Your task to perform on an android device: turn notification dots on Image 0: 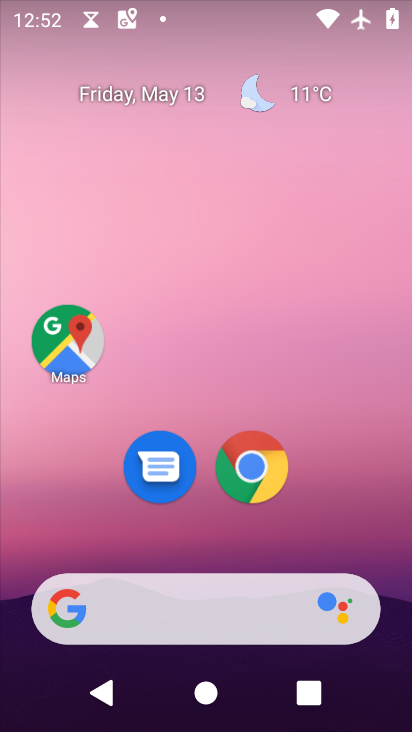
Step 0: drag from (352, 510) to (196, 92)
Your task to perform on an android device: turn notification dots on Image 1: 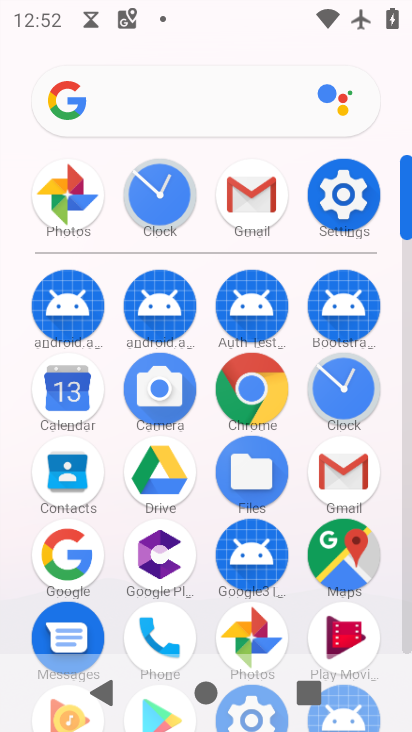
Step 1: click (349, 198)
Your task to perform on an android device: turn notification dots on Image 2: 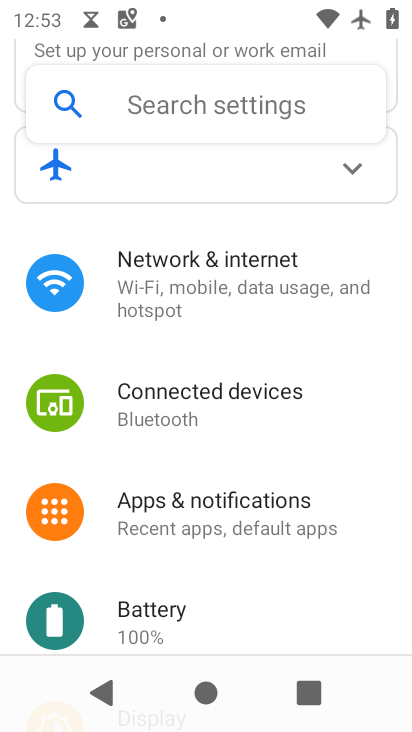
Step 2: click (246, 523)
Your task to perform on an android device: turn notification dots on Image 3: 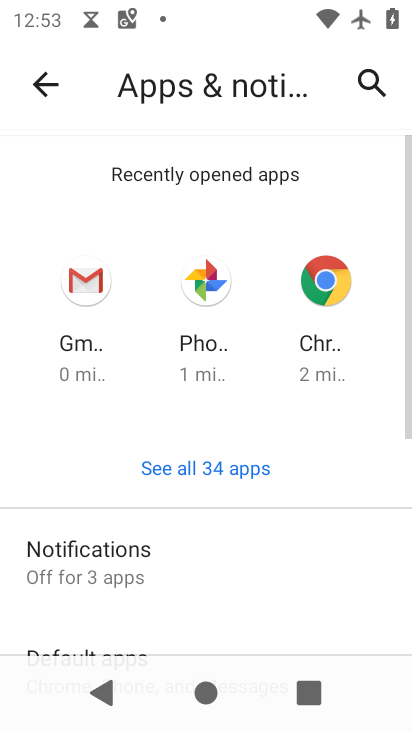
Step 3: drag from (222, 617) to (220, 299)
Your task to perform on an android device: turn notification dots on Image 4: 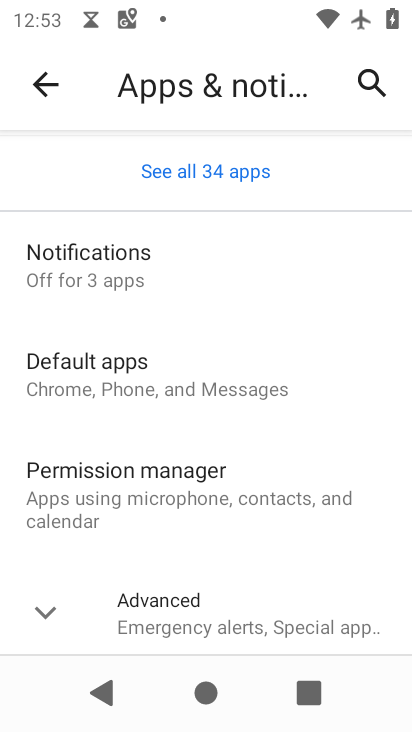
Step 4: click (166, 273)
Your task to perform on an android device: turn notification dots on Image 5: 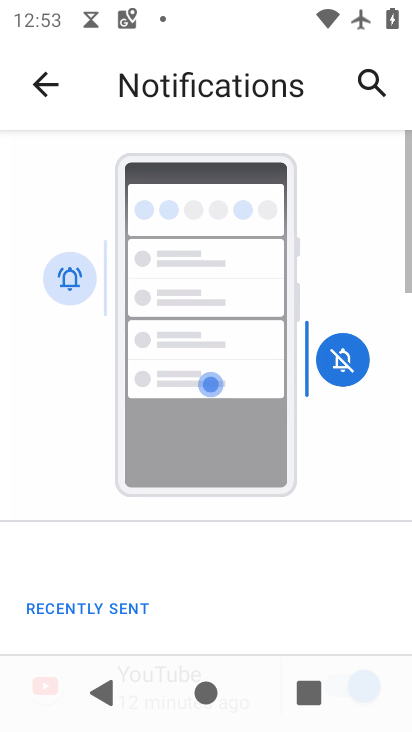
Step 5: drag from (249, 600) to (180, 169)
Your task to perform on an android device: turn notification dots on Image 6: 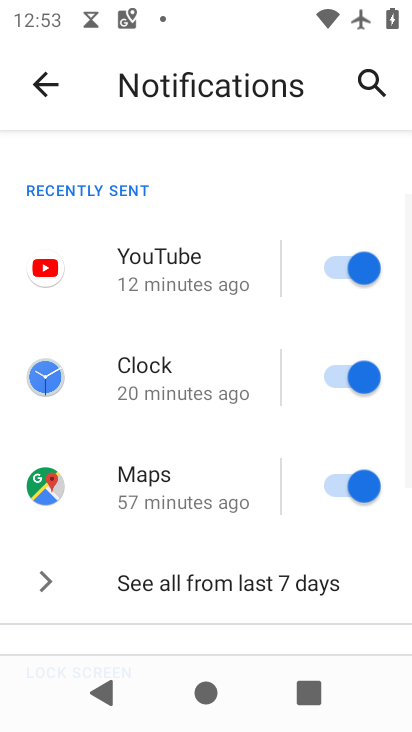
Step 6: drag from (228, 539) to (207, 195)
Your task to perform on an android device: turn notification dots on Image 7: 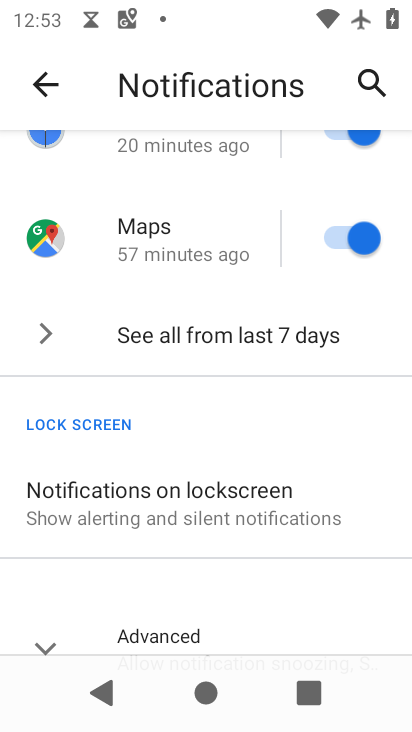
Step 7: drag from (192, 581) to (172, 356)
Your task to perform on an android device: turn notification dots on Image 8: 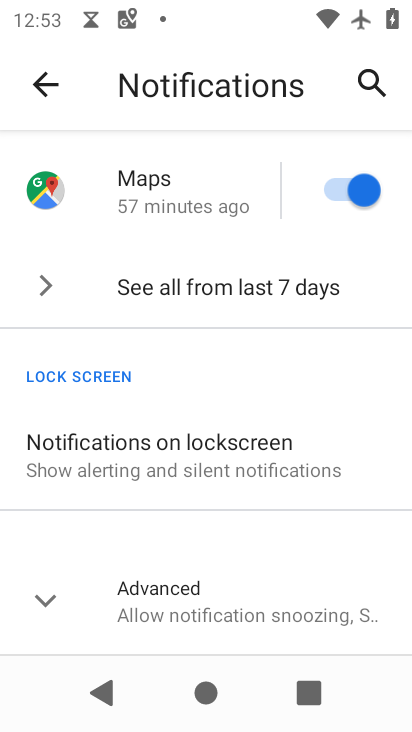
Step 8: click (209, 593)
Your task to perform on an android device: turn notification dots on Image 9: 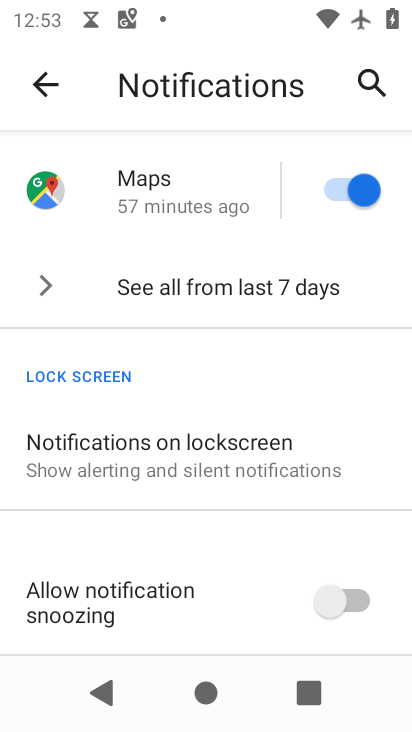
Step 9: drag from (242, 561) to (204, 118)
Your task to perform on an android device: turn notification dots on Image 10: 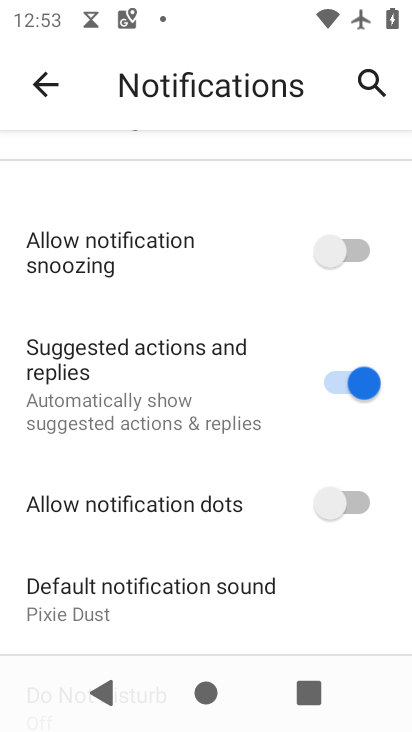
Step 10: click (338, 501)
Your task to perform on an android device: turn notification dots on Image 11: 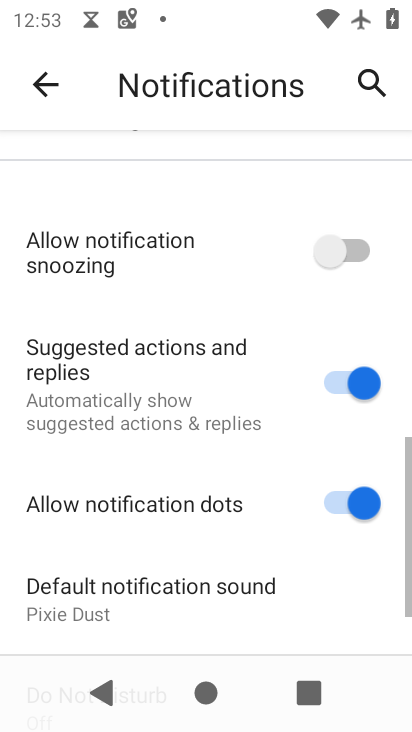
Step 11: task complete